Your task to perform on an android device: install app "Spotify: Music and Podcasts" Image 0: 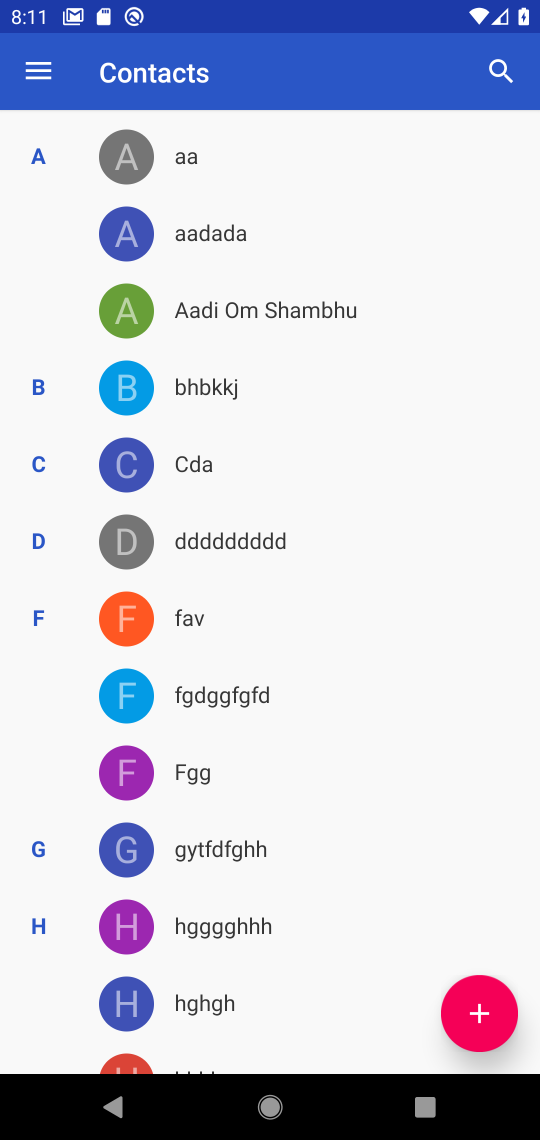
Step 0: press home button
Your task to perform on an android device: install app "Spotify: Music and Podcasts" Image 1: 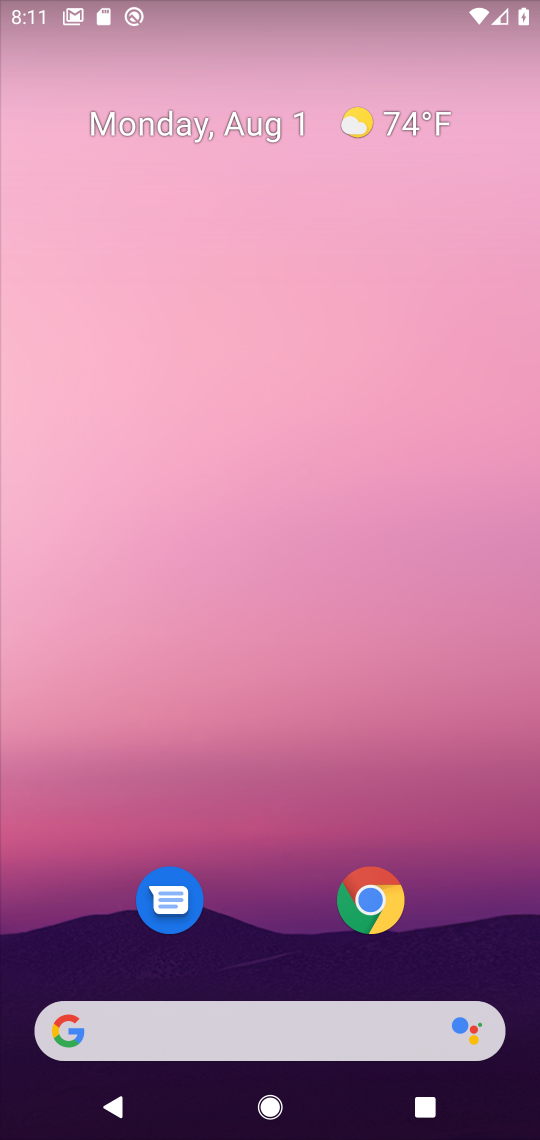
Step 1: drag from (259, 952) to (391, 93)
Your task to perform on an android device: install app "Spotify: Music and Podcasts" Image 2: 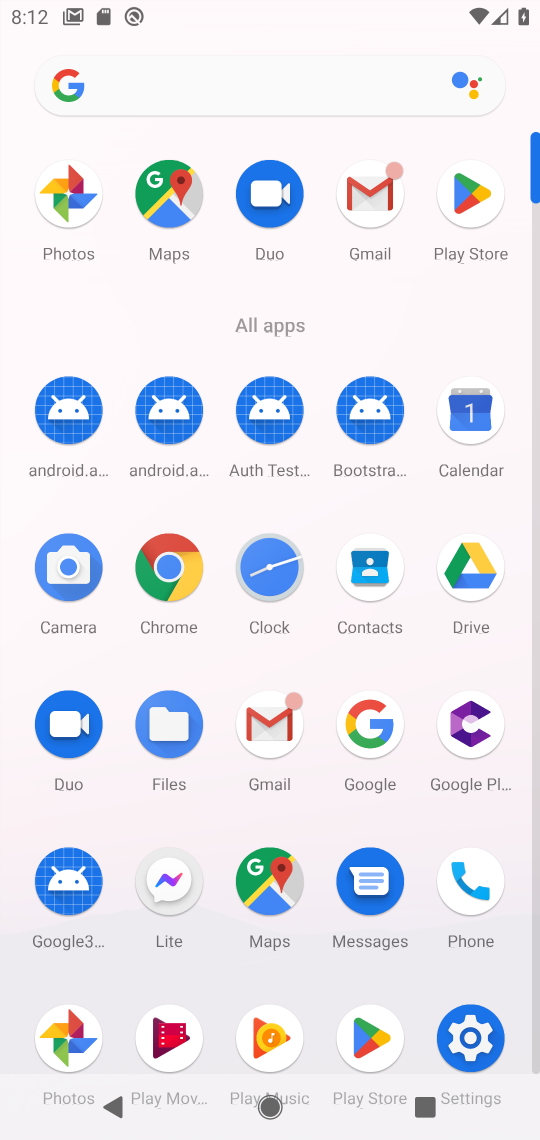
Step 2: click (363, 1010)
Your task to perform on an android device: install app "Spotify: Music and Podcasts" Image 3: 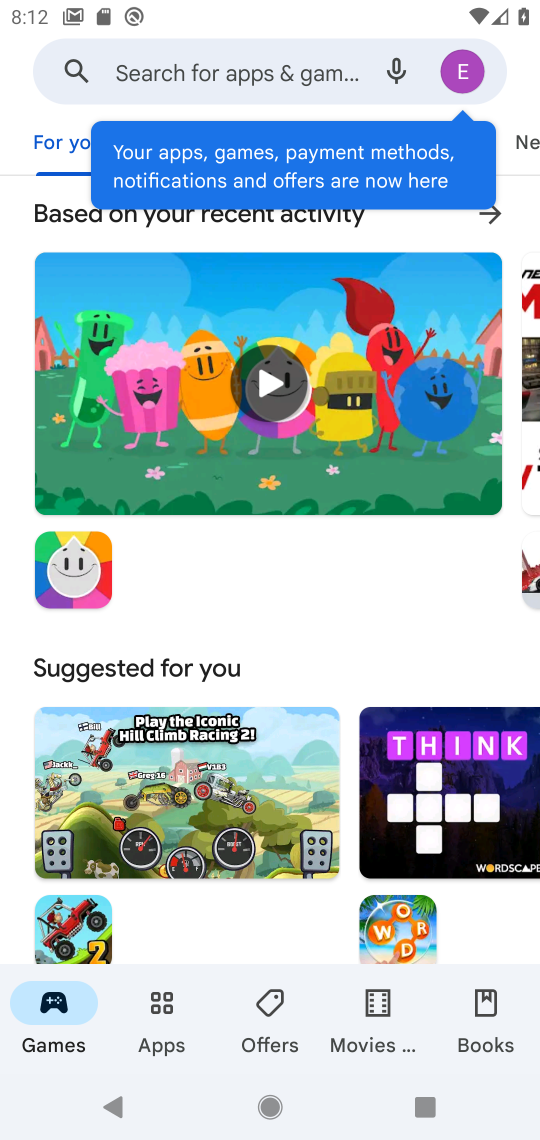
Step 3: click (144, 47)
Your task to perform on an android device: install app "Spotify: Music and Podcasts" Image 4: 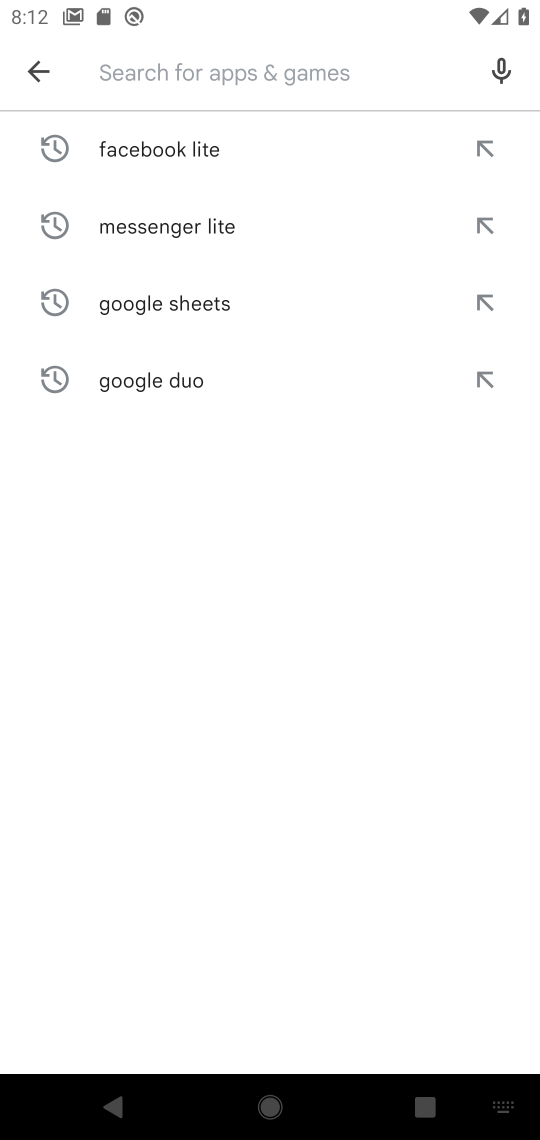
Step 4: type "Spotify: Music and Podcasts"
Your task to perform on an android device: install app "Spotify: Music and Podcasts" Image 5: 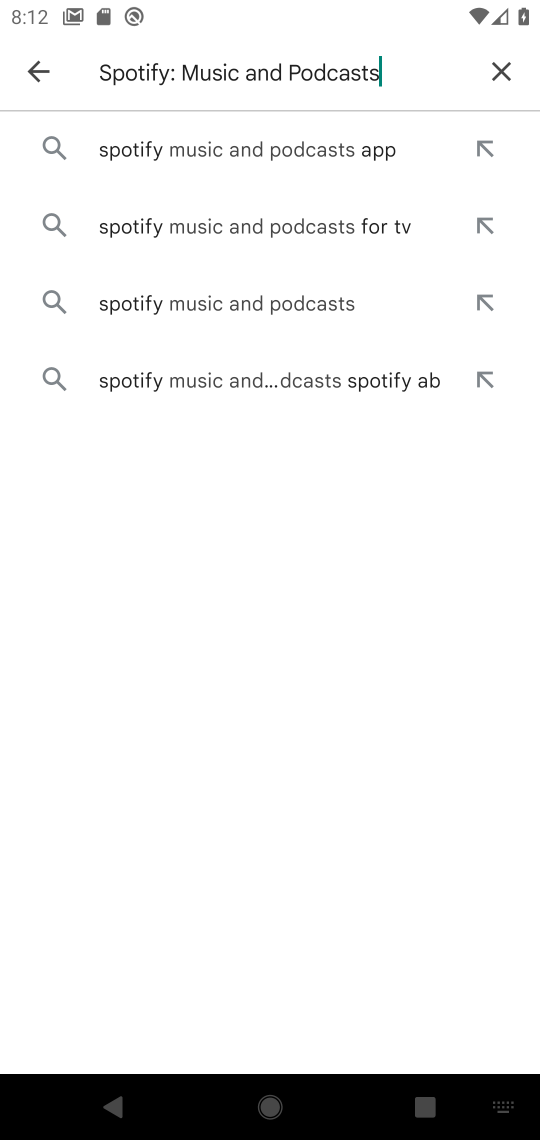
Step 5: type ""
Your task to perform on an android device: install app "Spotify: Music and Podcasts" Image 6: 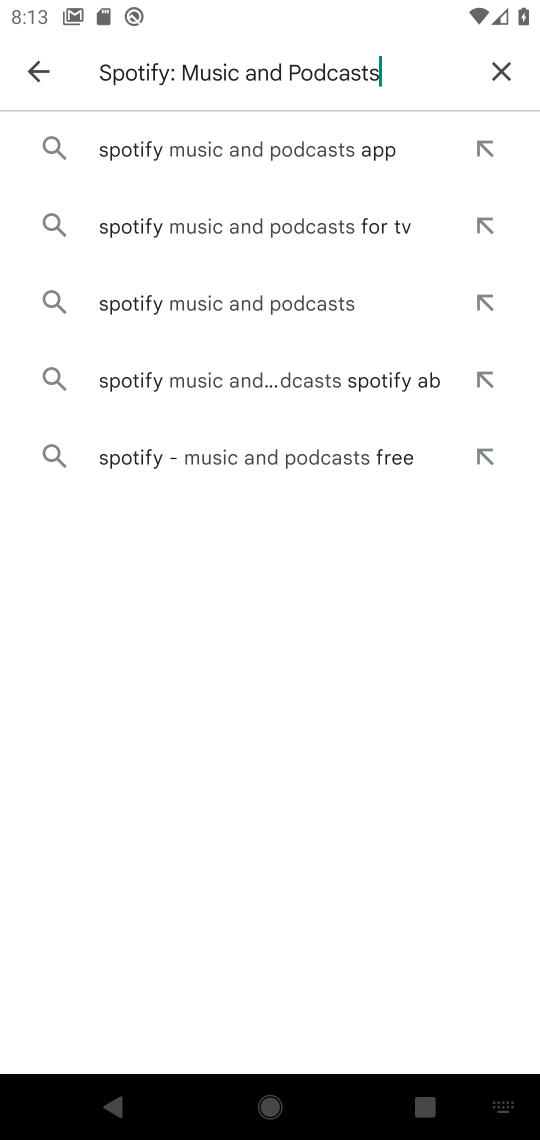
Step 6: click (140, 156)
Your task to perform on an android device: install app "Spotify: Music and Podcasts" Image 7: 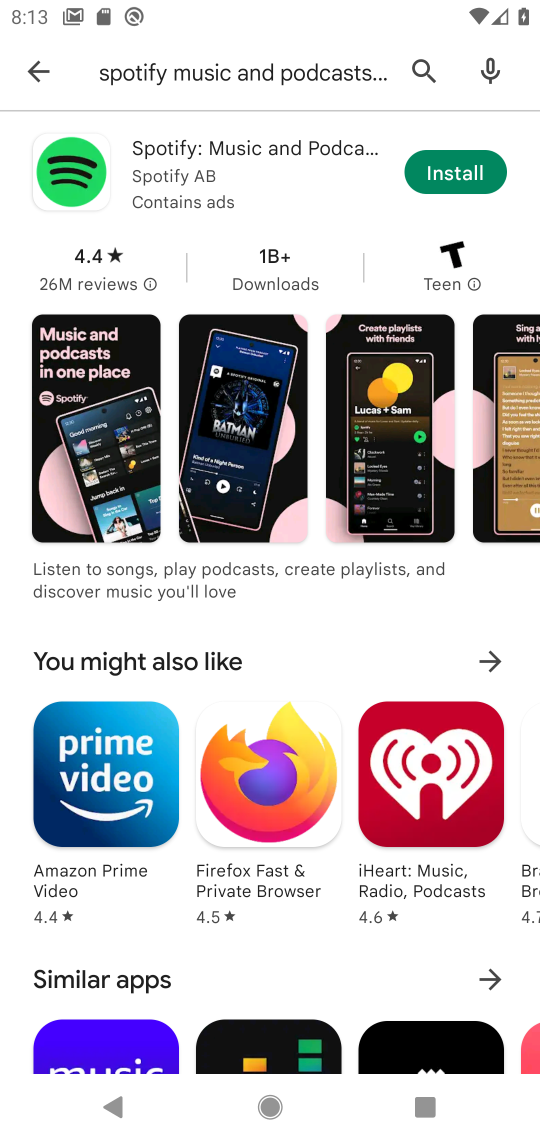
Step 7: click (448, 180)
Your task to perform on an android device: install app "Spotify: Music and Podcasts" Image 8: 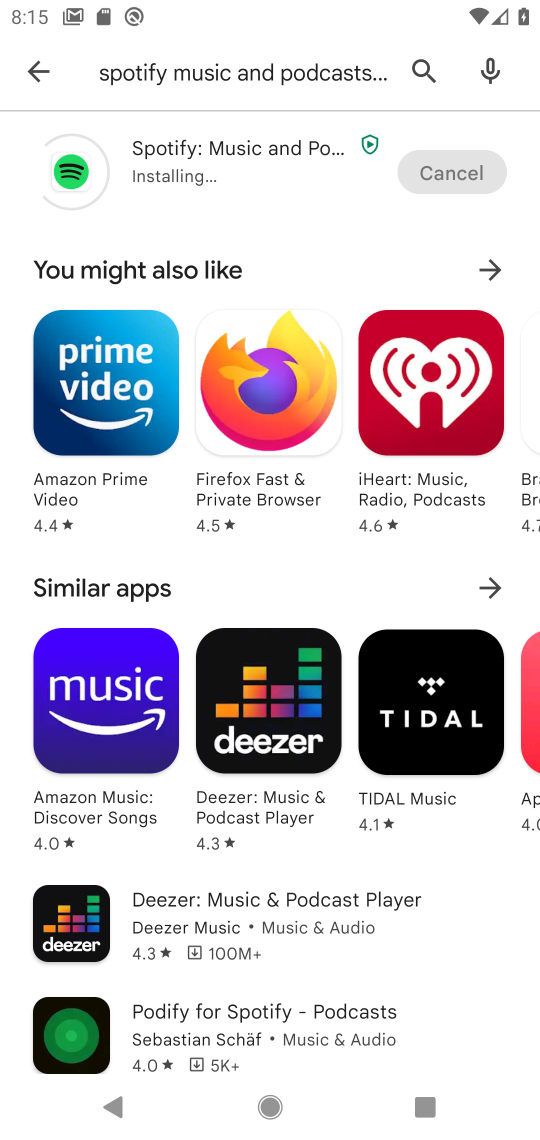
Step 8: click (282, 147)
Your task to perform on an android device: install app "Spotify: Music and Podcasts" Image 9: 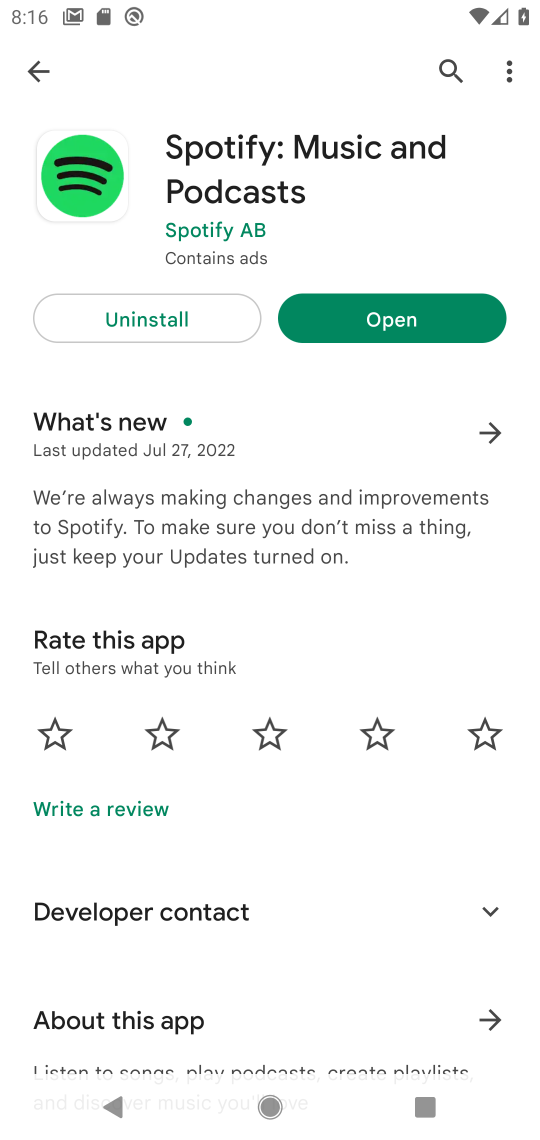
Step 9: task complete